Your task to perform on an android device: Search for vegetarian restaurants on Maps Image 0: 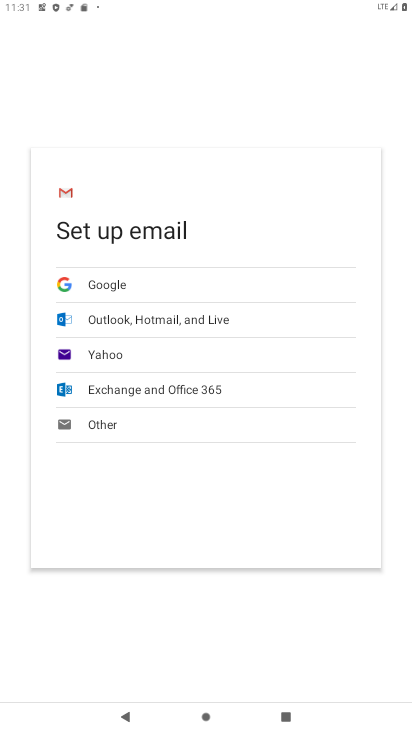
Step 0: press home button
Your task to perform on an android device: Search for vegetarian restaurants on Maps Image 1: 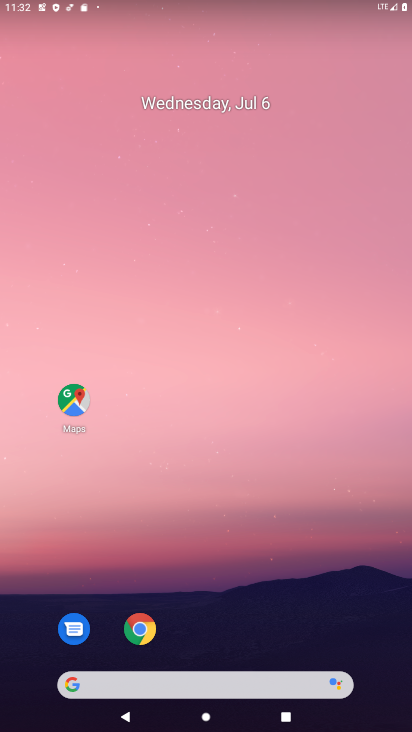
Step 1: click (71, 423)
Your task to perform on an android device: Search for vegetarian restaurants on Maps Image 2: 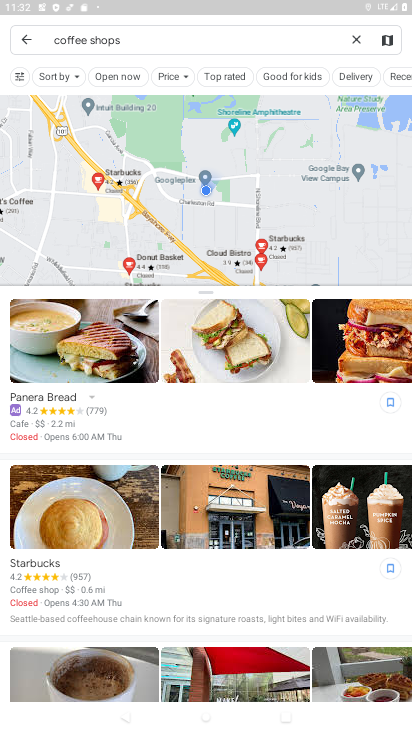
Step 2: click (176, 36)
Your task to perform on an android device: Search for vegetarian restaurants on Maps Image 3: 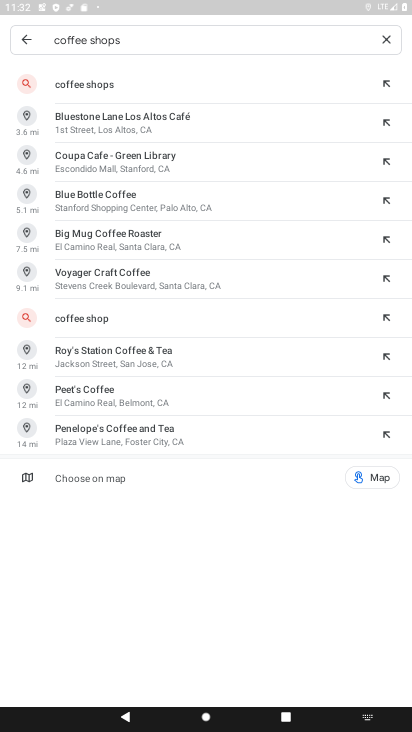
Step 3: click (381, 40)
Your task to perform on an android device: Search for vegetarian restaurants on Maps Image 4: 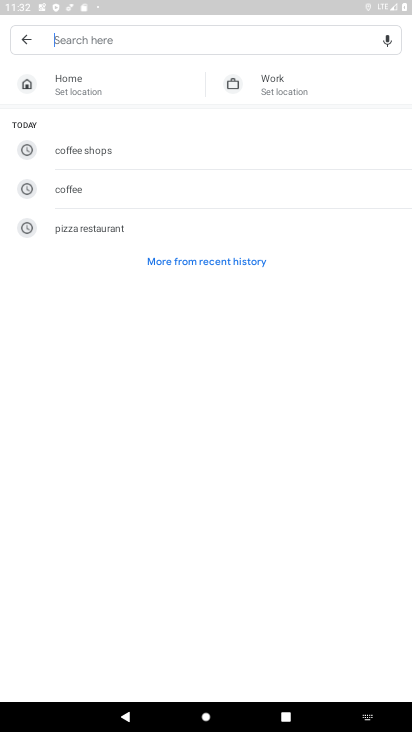
Step 4: type "vegetarian restaurants"
Your task to perform on an android device: Search for vegetarian restaurants on Maps Image 5: 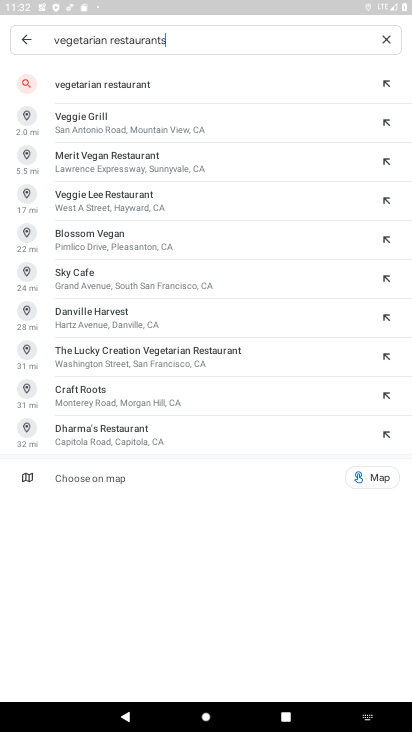
Step 5: click (126, 84)
Your task to perform on an android device: Search for vegetarian restaurants on Maps Image 6: 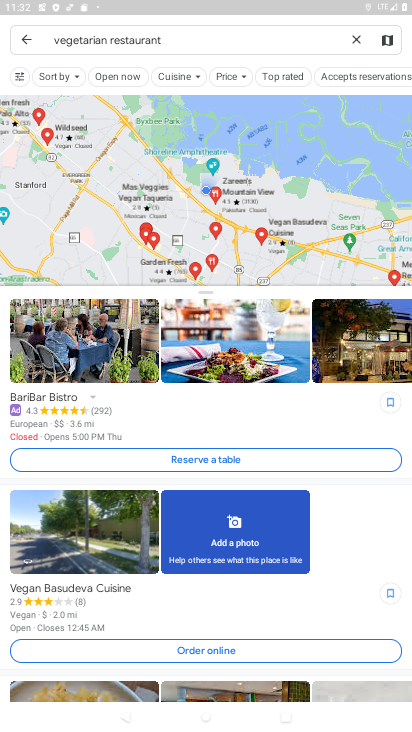
Step 6: task complete